Your task to perform on an android device: clear all cookies in the chrome app Image 0: 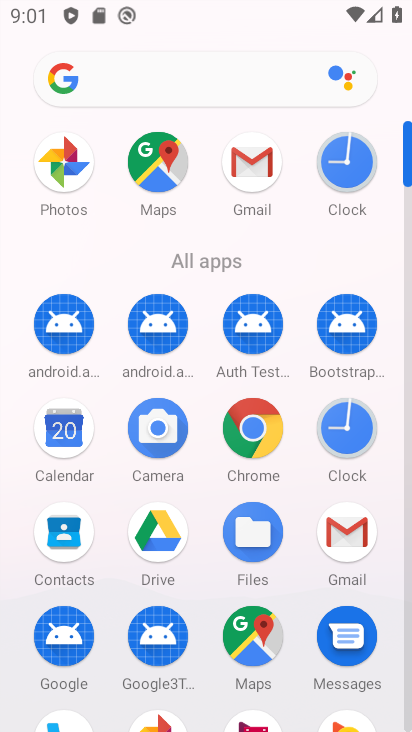
Step 0: press home button
Your task to perform on an android device: clear all cookies in the chrome app Image 1: 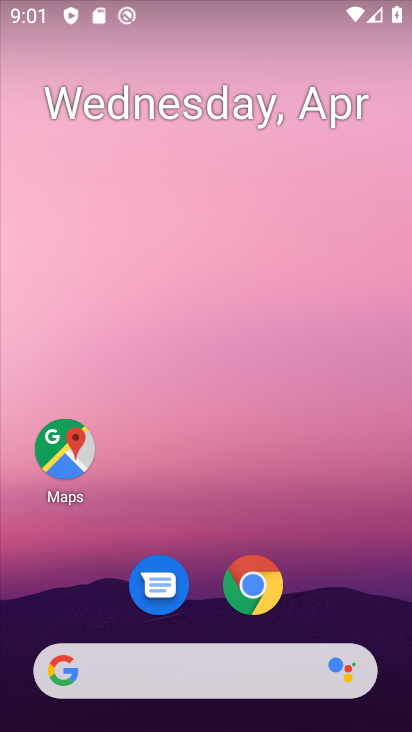
Step 1: click (256, 588)
Your task to perform on an android device: clear all cookies in the chrome app Image 2: 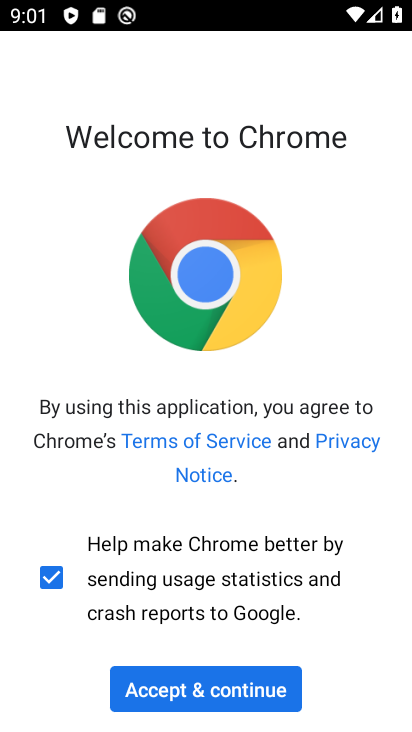
Step 2: click (259, 685)
Your task to perform on an android device: clear all cookies in the chrome app Image 3: 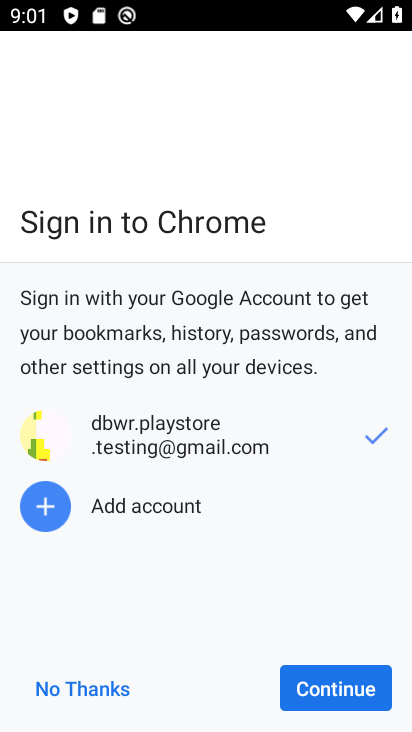
Step 3: click (305, 676)
Your task to perform on an android device: clear all cookies in the chrome app Image 4: 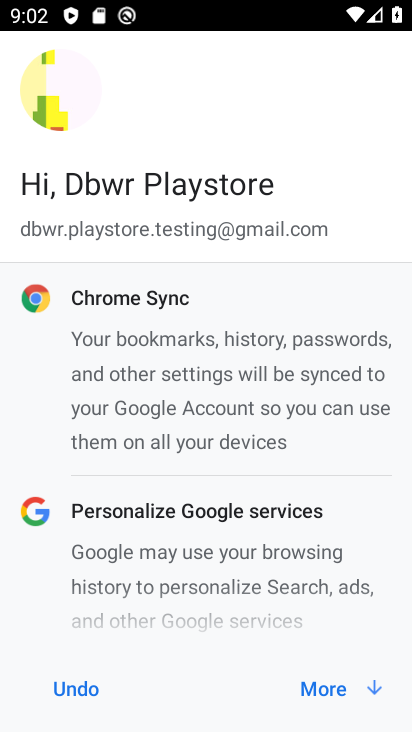
Step 4: click (318, 684)
Your task to perform on an android device: clear all cookies in the chrome app Image 5: 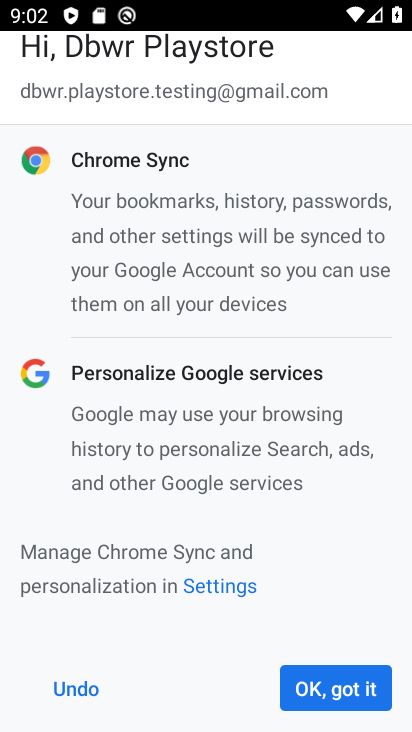
Step 5: click (318, 684)
Your task to perform on an android device: clear all cookies in the chrome app Image 6: 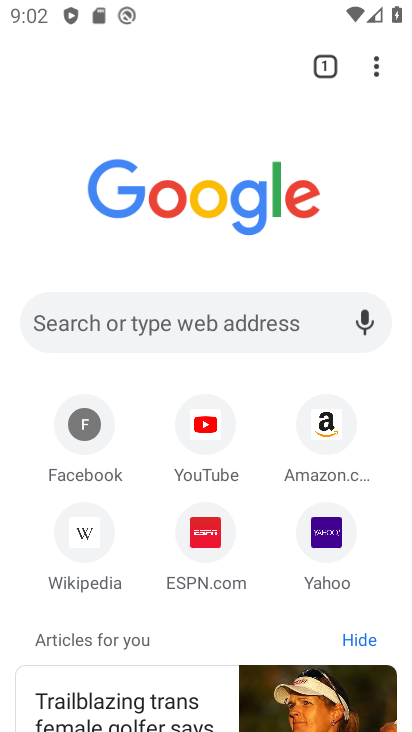
Step 6: click (375, 71)
Your task to perform on an android device: clear all cookies in the chrome app Image 7: 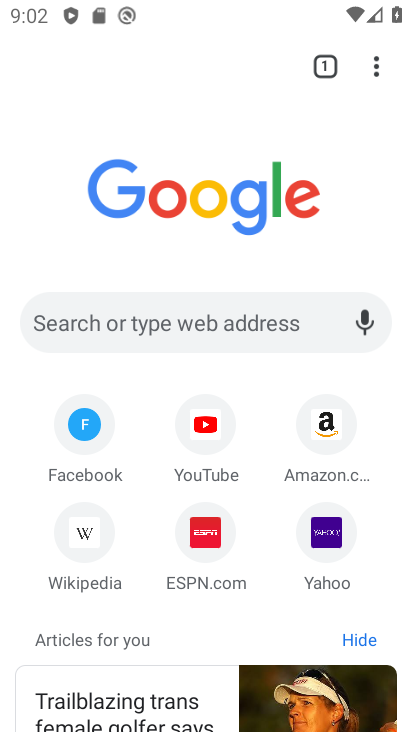
Step 7: click (375, 71)
Your task to perform on an android device: clear all cookies in the chrome app Image 8: 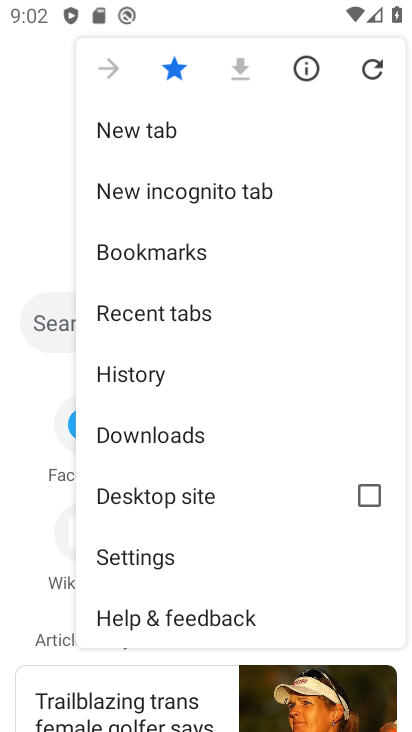
Step 8: click (186, 550)
Your task to perform on an android device: clear all cookies in the chrome app Image 9: 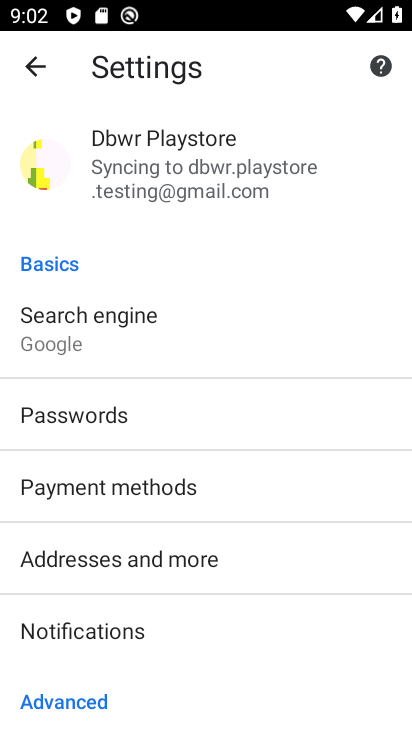
Step 9: drag from (186, 550) to (203, 312)
Your task to perform on an android device: clear all cookies in the chrome app Image 10: 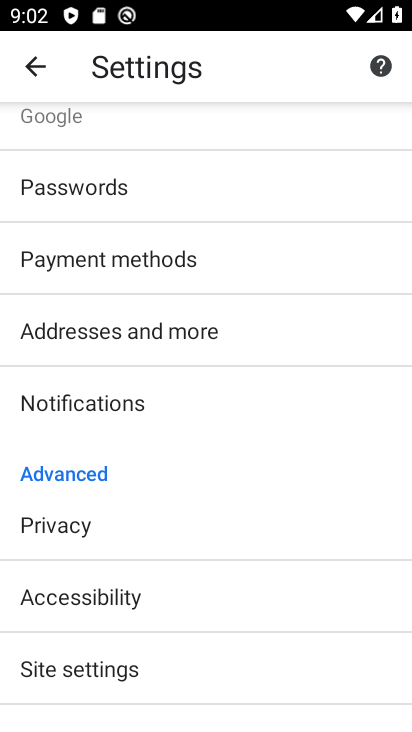
Step 10: click (198, 655)
Your task to perform on an android device: clear all cookies in the chrome app Image 11: 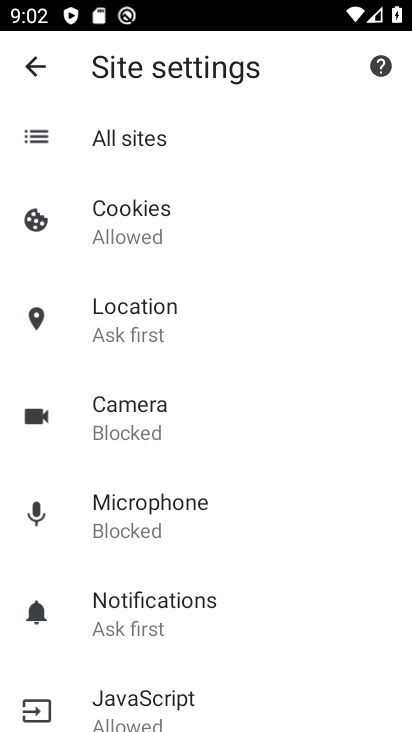
Step 11: click (36, 64)
Your task to perform on an android device: clear all cookies in the chrome app Image 12: 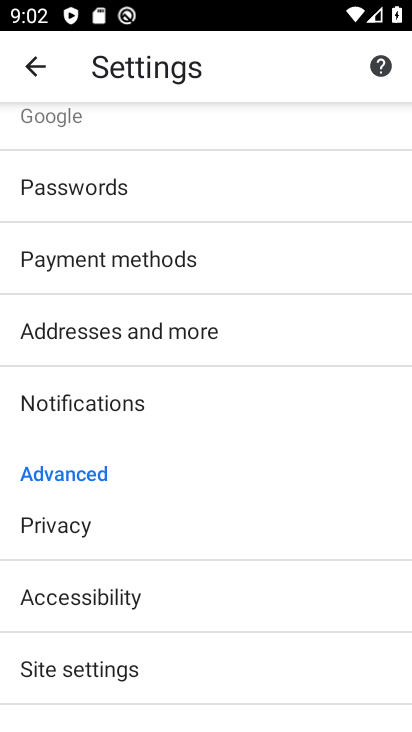
Step 12: click (100, 519)
Your task to perform on an android device: clear all cookies in the chrome app Image 13: 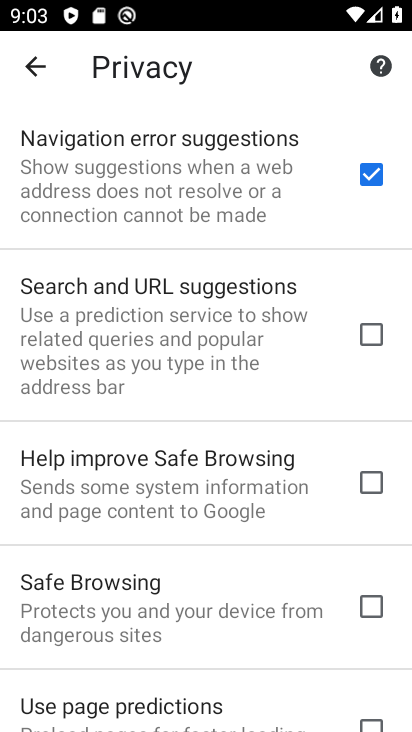
Step 13: drag from (100, 519) to (160, 139)
Your task to perform on an android device: clear all cookies in the chrome app Image 14: 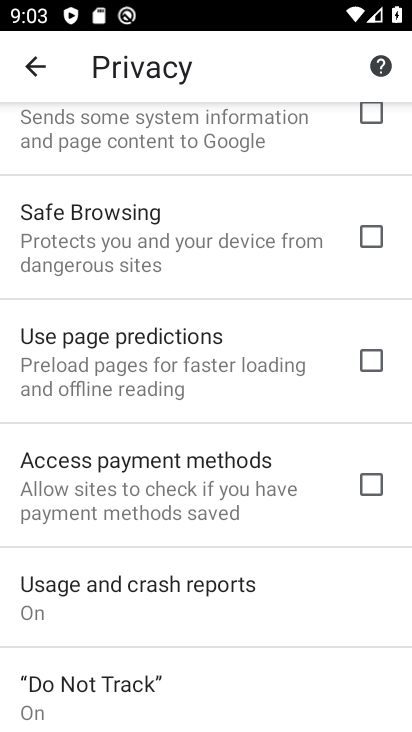
Step 14: drag from (156, 602) to (181, 310)
Your task to perform on an android device: clear all cookies in the chrome app Image 15: 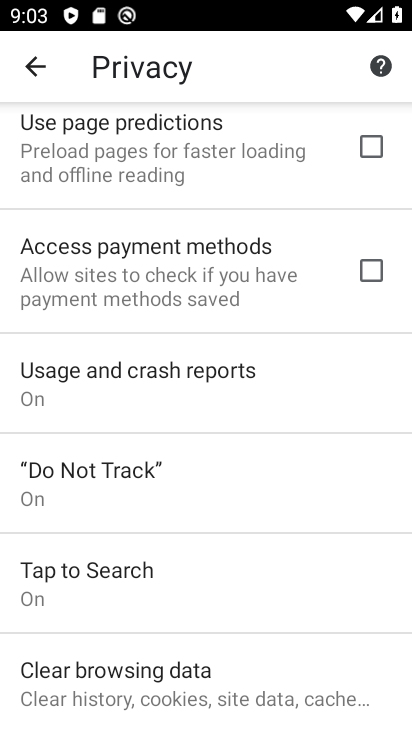
Step 15: click (181, 686)
Your task to perform on an android device: clear all cookies in the chrome app Image 16: 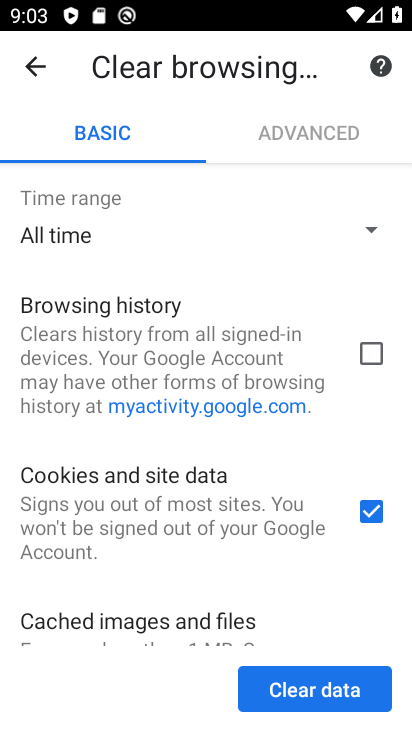
Step 16: drag from (207, 584) to (207, 491)
Your task to perform on an android device: clear all cookies in the chrome app Image 17: 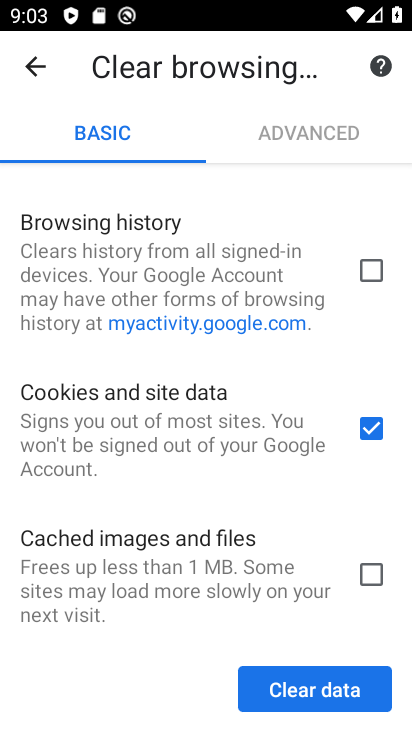
Step 17: click (302, 679)
Your task to perform on an android device: clear all cookies in the chrome app Image 18: 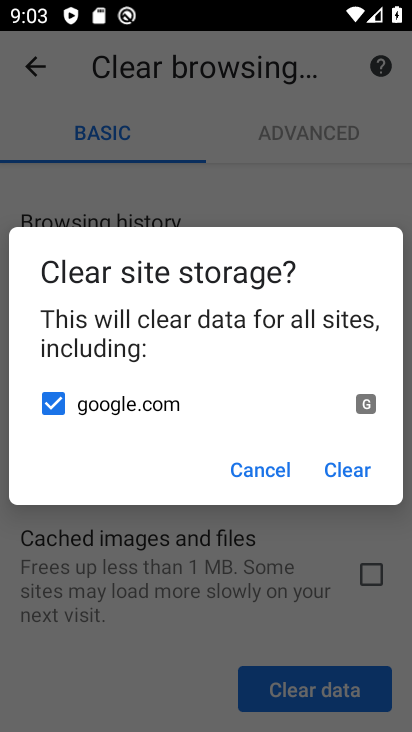
Step 18: click (355, 467)
Your task to perform on an android device: clear all cookies in the chrome app Image 19: 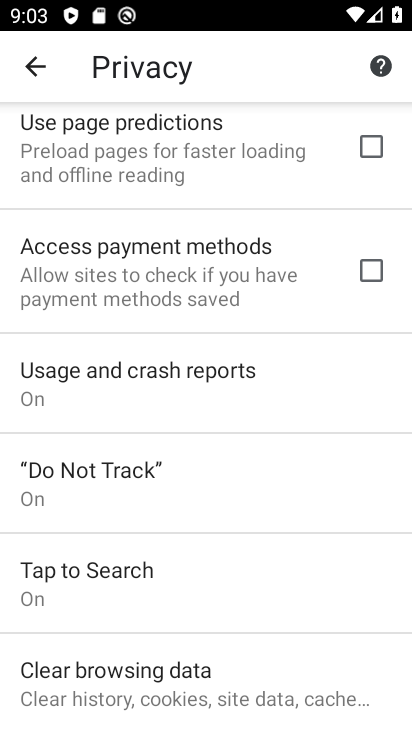
Step 19: task complete